Your task to perform on an android device: turn on improve location accuracy Image 0: 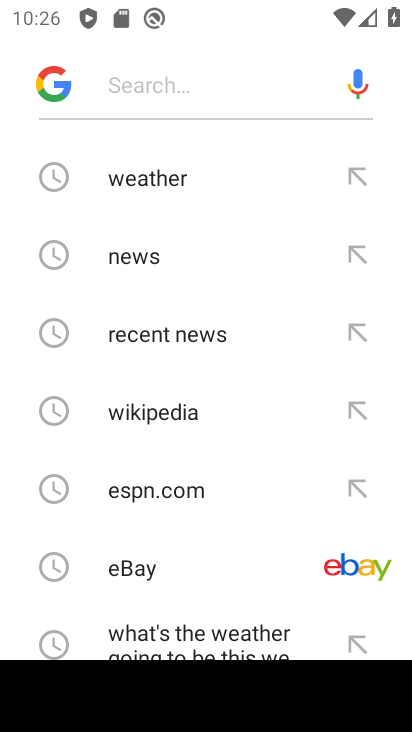
Step 0: press home button
Your task to perform on an android device: turn on improve location accuracy Image 1: 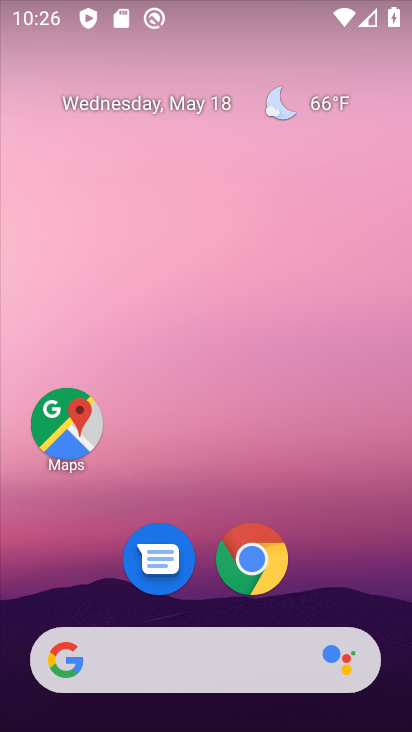
Step 1: drag from (207, 545) to (240, 204)
Your task to perform on an android device: turn on improve location accuracy Image 2: 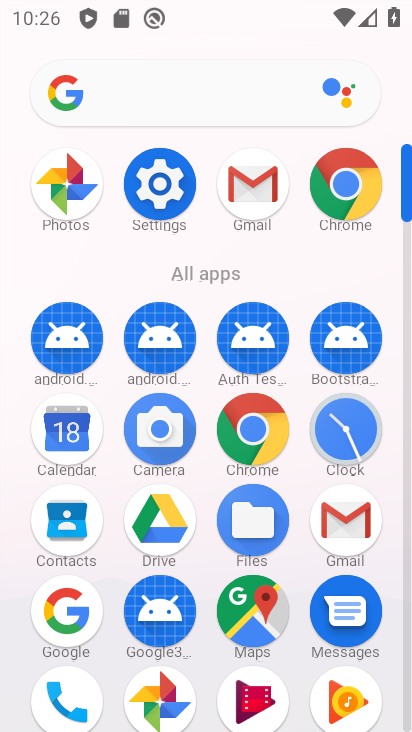
Step 2: click (159, 186)
Your task to perform on an android device: turn on improve location accuracy Image 3: 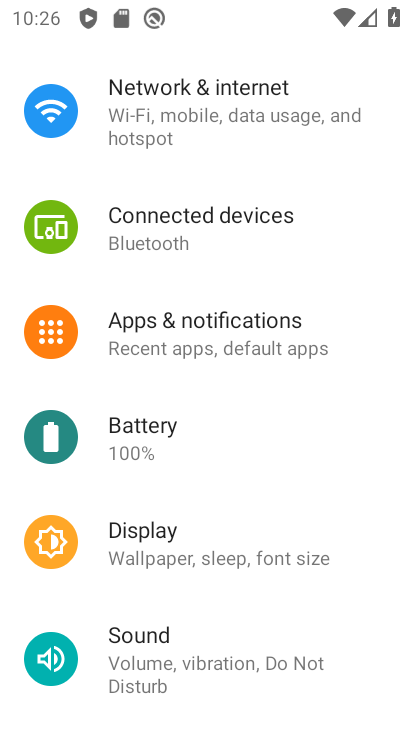
Step 3: drag from (206, 494) to (233, 160)
Your task to perform on an android device: turn on improve location accuracy Image 4: 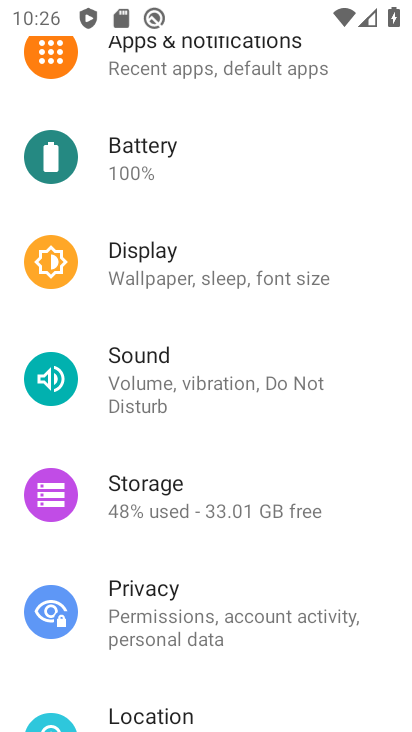
Step 4: drag from (190, 649) to (250, 265)
Your task to perform on an android device: turn on improve location accuracy Image 5: 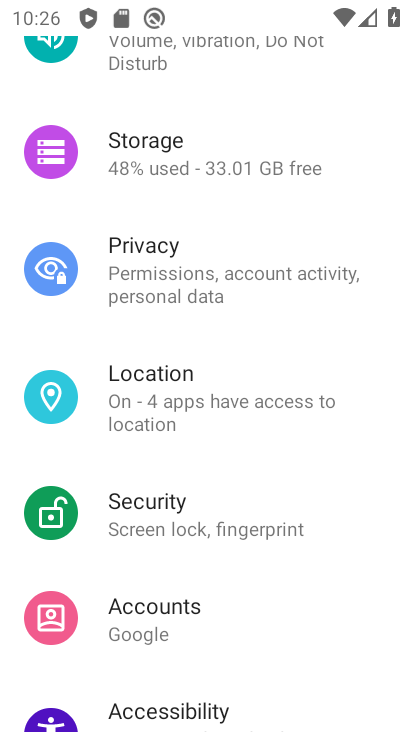
Step 5: click (167, 390)
Your task to perform on an android device: turn on improve location accuracy Image 6: 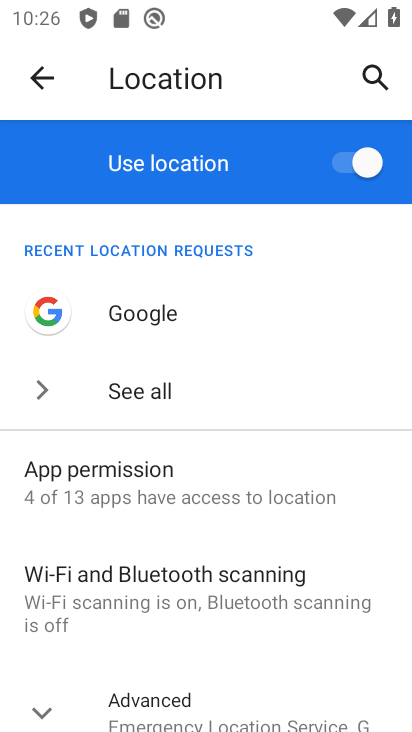
Step 6: click (42, 706)
Your task to perform on an android device: turn on improve location accuracy Image 7: 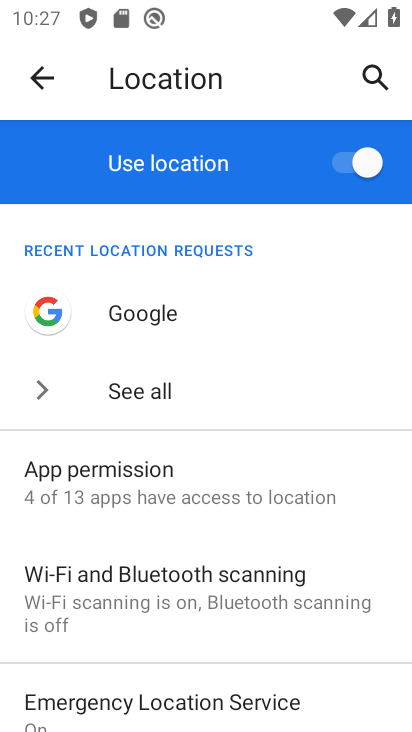
Step 7: drag from (155, 602) to (196, 228)
Your task to perform on an android device: turn on improve location accuracy Image 8: 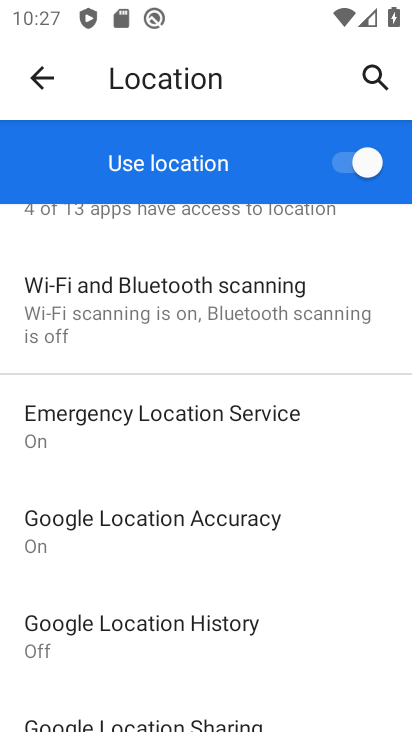
Step 8: click (190, 531)
Your task to perform on an android device: turn on improve location accuracy Image 9: 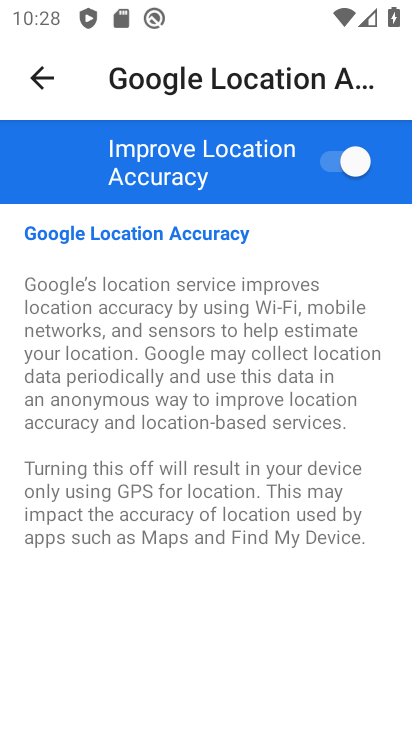
Step 9: task complete